Your task to perform on an android device: Do I have any events tomorrow? Image 0: 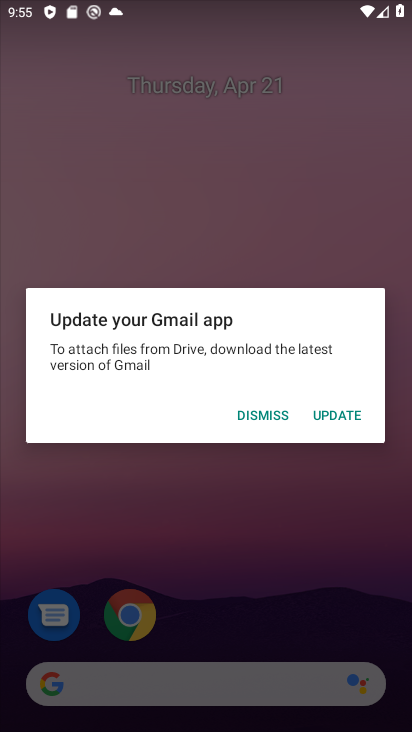
Step 0: press home button
Your task to perform on an android device: Do I have any events tomorrow? Image 1: 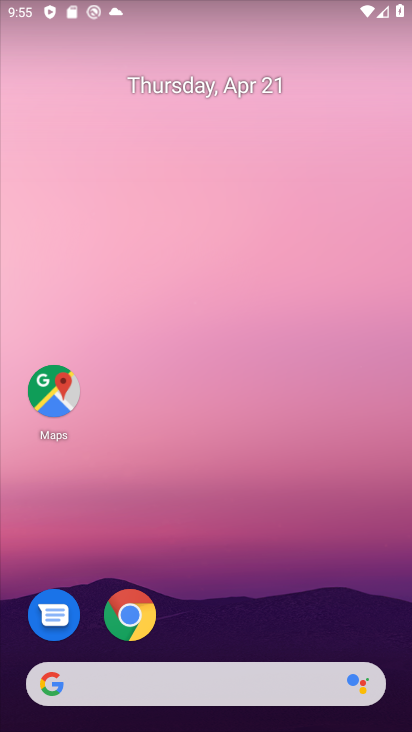
Step 1: drag from (233, 605) to (233, 84)
Your task to perform on an android device: Do I have any events tomorrow? Image 2: 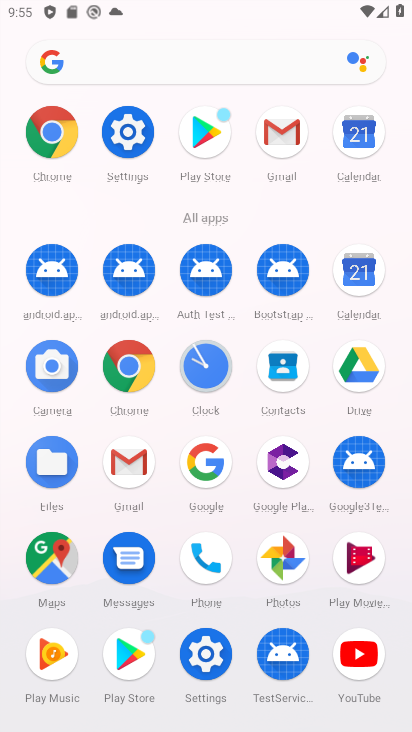
Step 2: click (358, 267)
Your task to perform on an android device: Do I have any events tomorrow? Image 3: 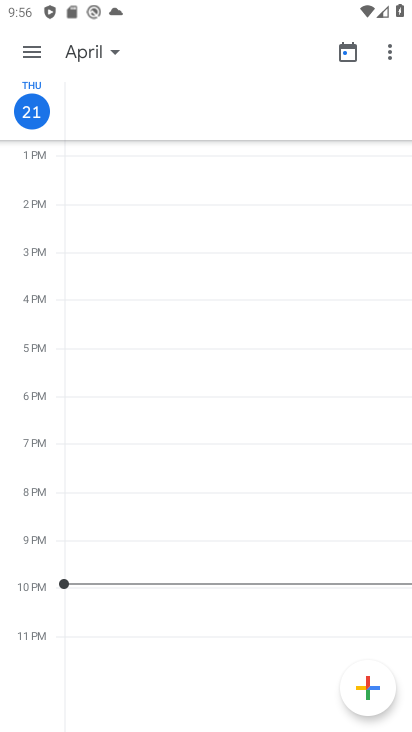
Step 3: click (26, 53)
Your task to perform on an android device: Do I have any events tomorrow? Image 4: 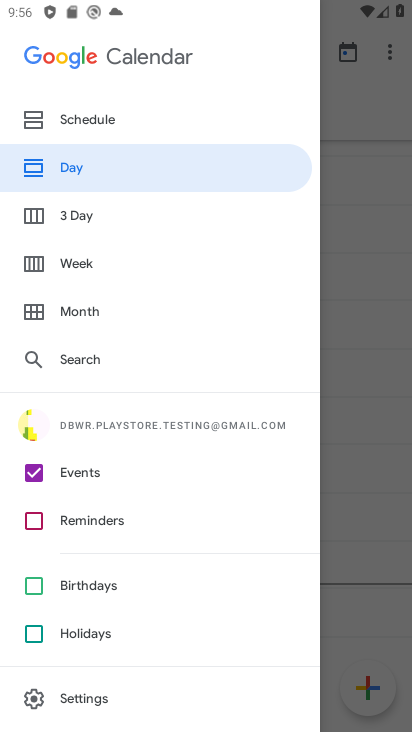
Step 4: click (50, 168)
Your task to perform on an android device: Do I have any events tomorrow? Image 5: 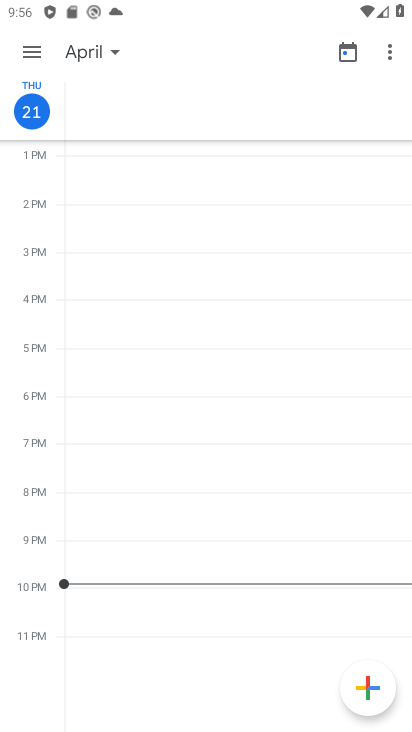
Step 5: click (50, 92)
Your task to perform on an android device: Do I have any events tomorrow? Image 6: 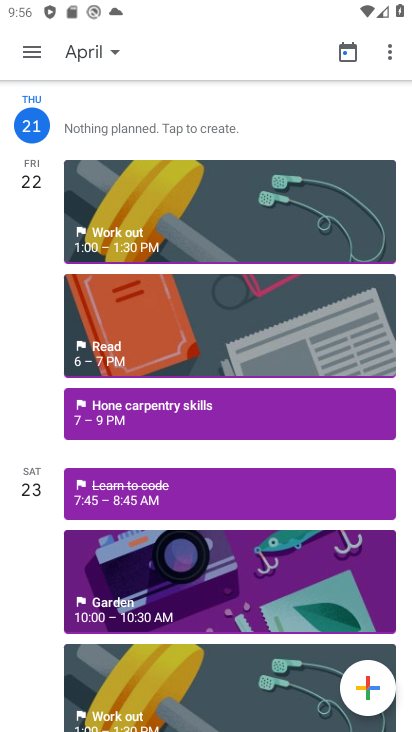
Step 6: click (42, 255)
Your task to perform on an android device: Do I have any events tomorrow? Image 7: 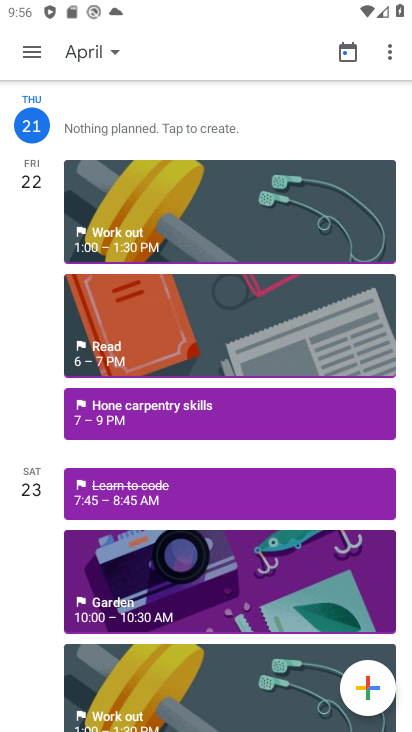
Step 7: click (30, 189)
Your task to perform on an android device: Do I have any events tomorrow? Image 8: 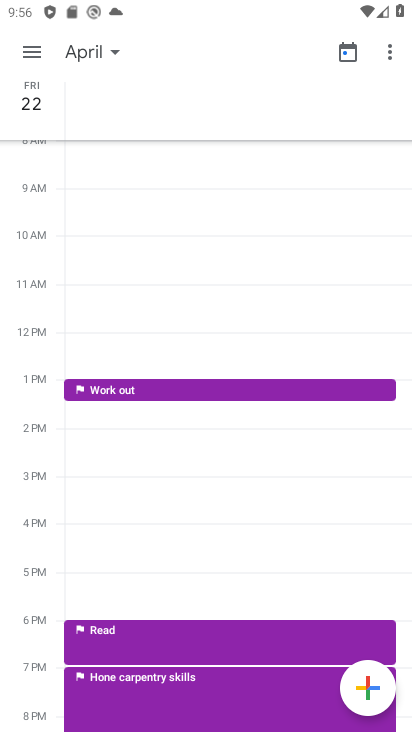
Step 8: task complete